Your task to perform on an android device: Search for Mexican restaurants on Maps Image 0: 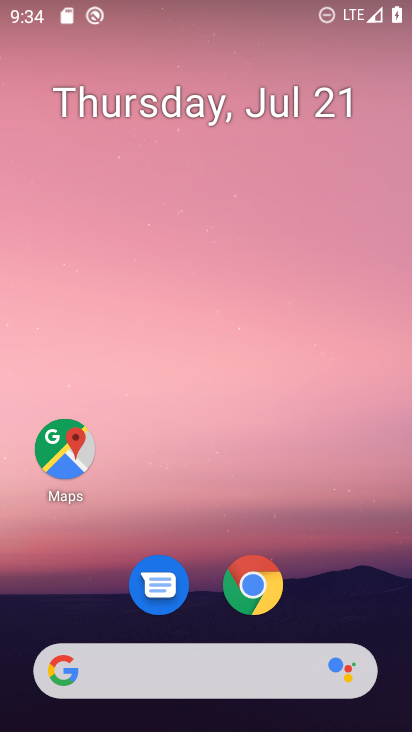
Step 0: click (71, 453)
Your task to perform on an android device: Search for Mexican restaurants on Maps Image 1: 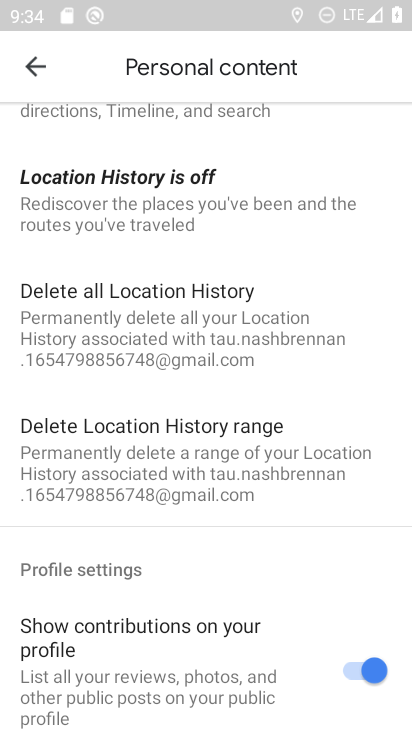
Step 1: click (38, 64)
Your task to perform on an android device: Search for Mexican restaurants on Maps Image 2: 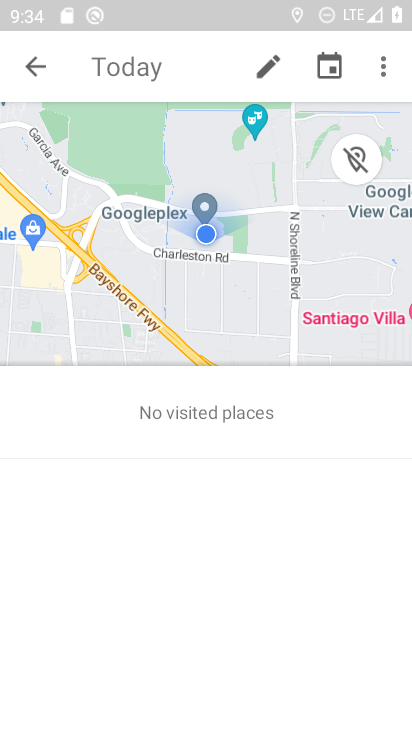
Step 2: click (38, 64)
Your task to perform on an android device: Search for Mexican restaurants on Maps Image 3: 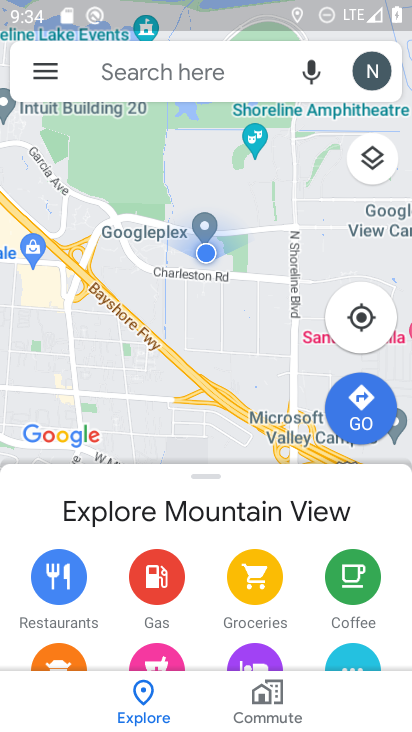
Step 3: click (85, 64)
Your task to perform on an android device: Search for Mexican restaurants on Maps Image 4: 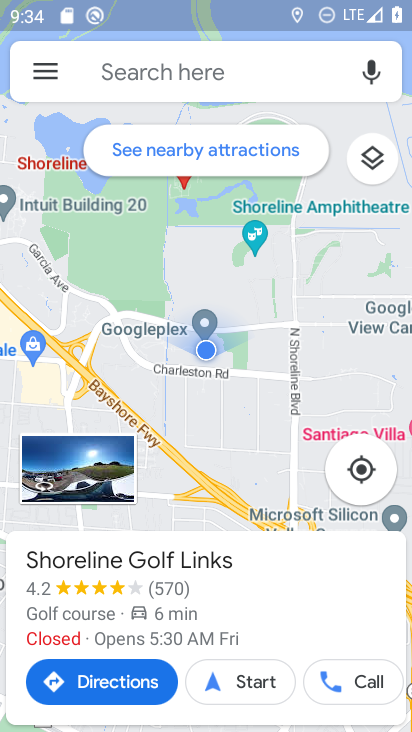
Step 4: click (108, 64)
Your task to perform on an android device: Search for Mexican restaurants on Maps Image 5: 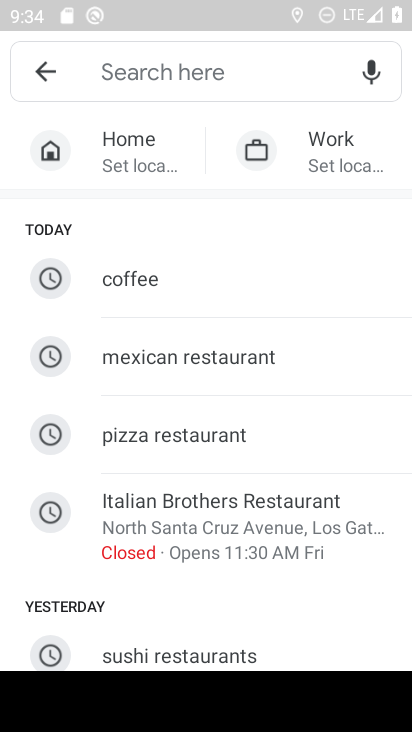
Step 5: click (187, 360)
Your task to perform on an android device: Search for Mexican restaurants on Maps Image 6: 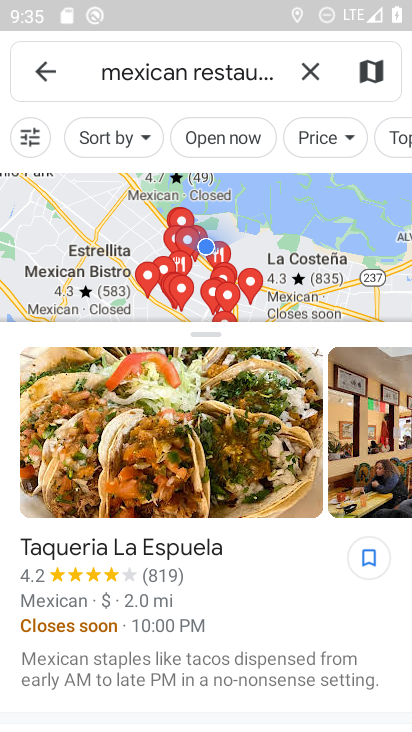
Step 6: task complete